Your task to perform on an android device: toggle data saver in the chrome app Image 0: 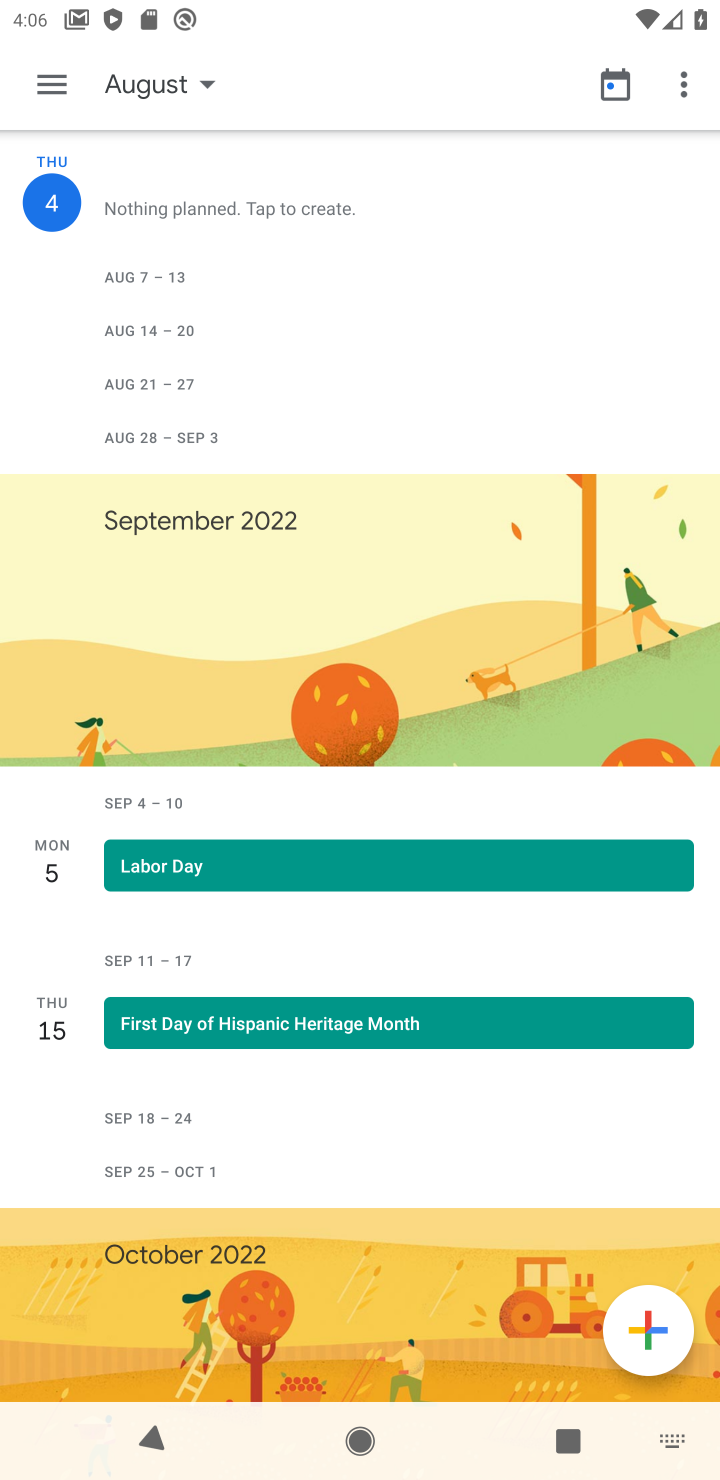
Step 0: press home button
Your task to perform on an android device: toggle data saver in the chrome app Image 1: 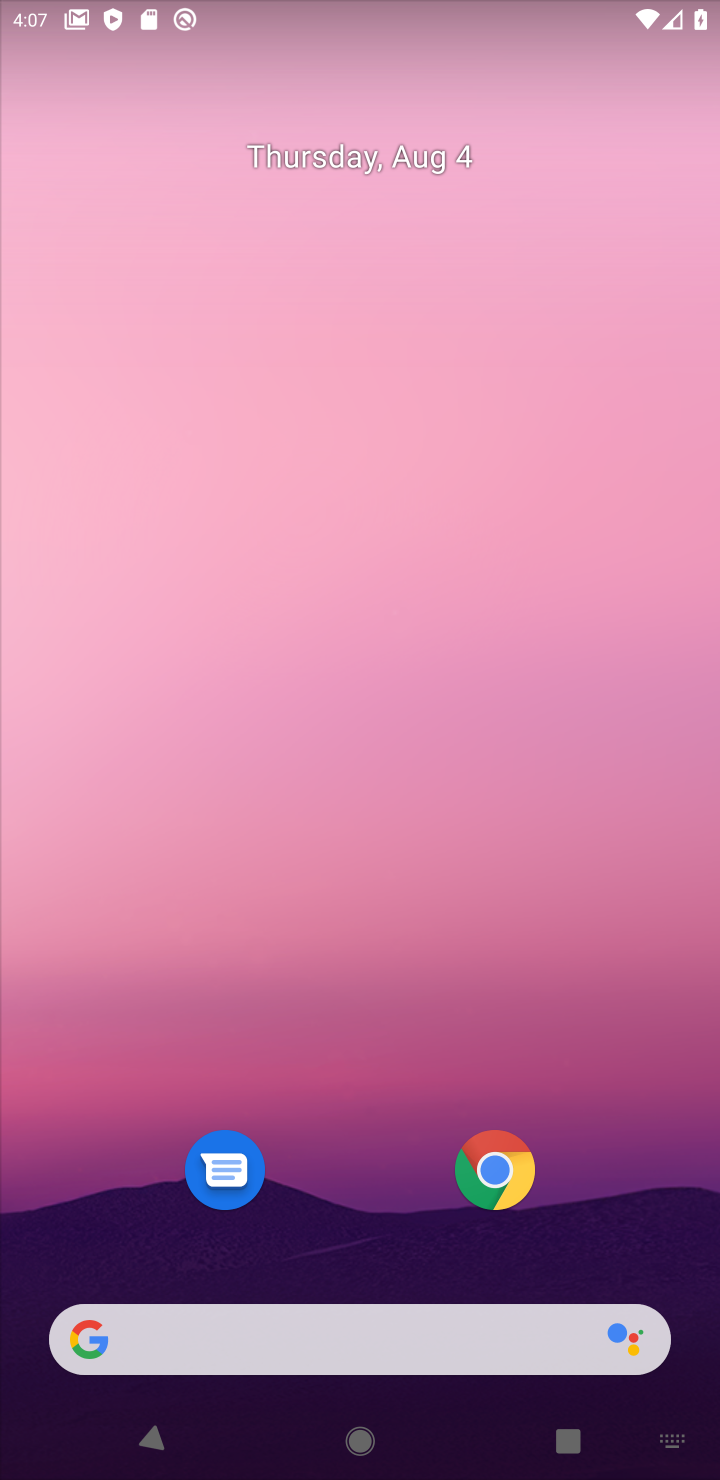
Step 1: drag from (671, 1185) to (552, 196)
Your task to perform on an android device: toggle data saver in the chrome app Image 2: 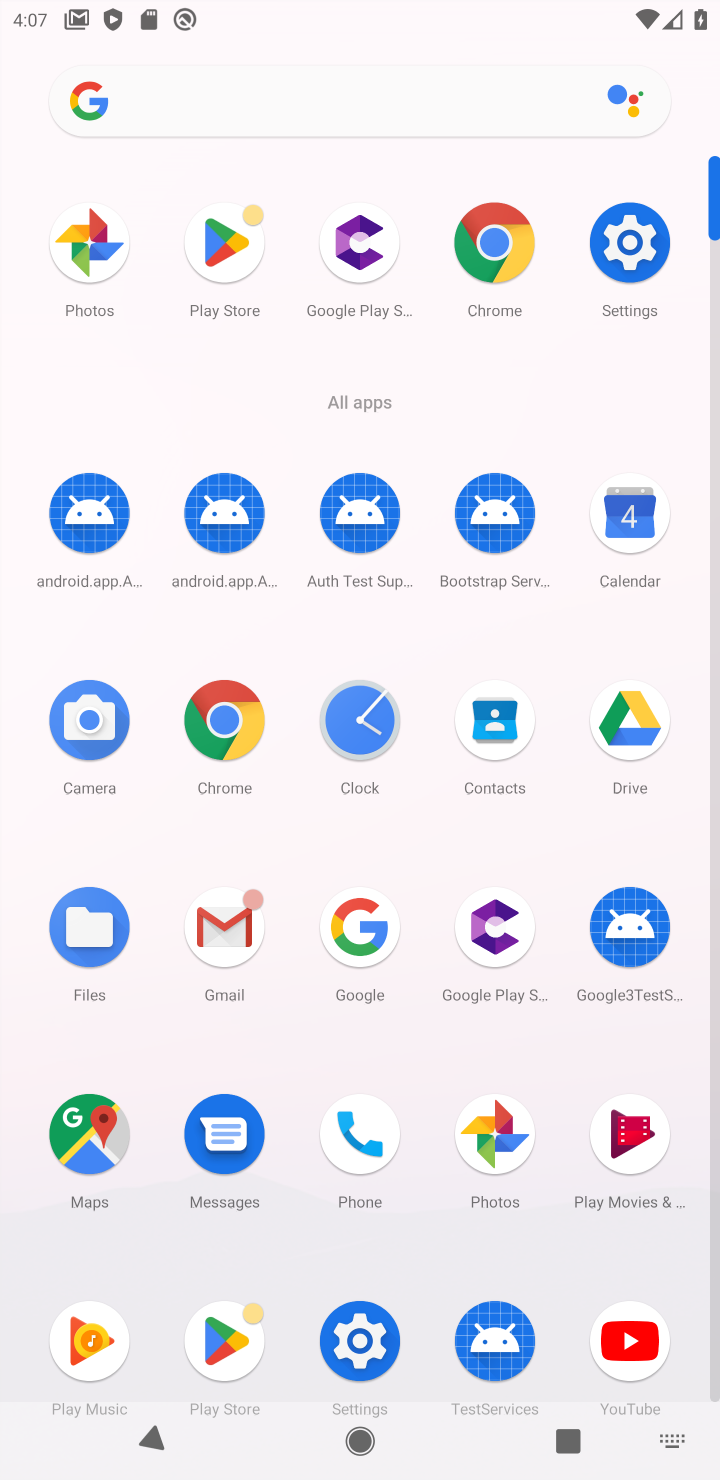
Step 2: click (503, 260)
Your task to perform on an android device: toggle data saver in the chrome app Image 3: 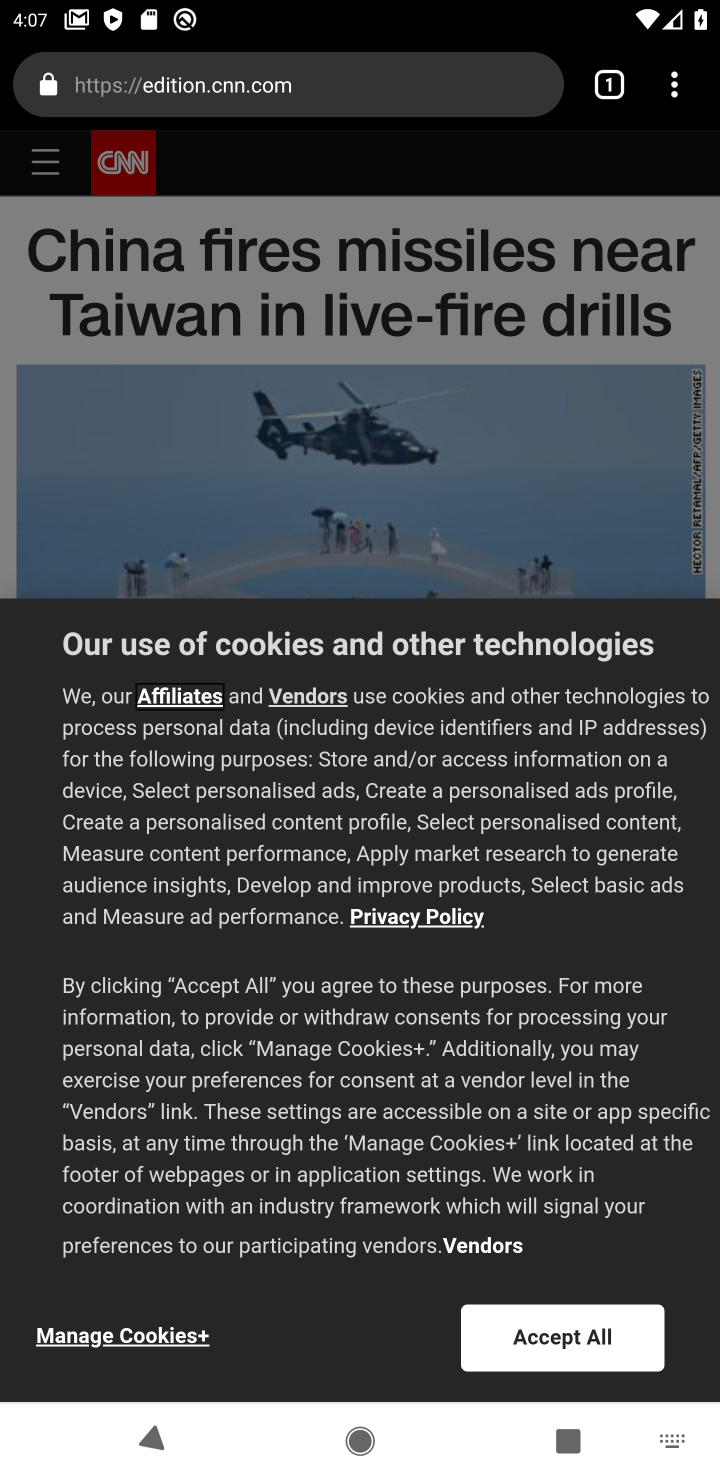
Step 3: click (680, 95)
Your task to perform on an android device: toggle data saver in the chrome app Image 4: 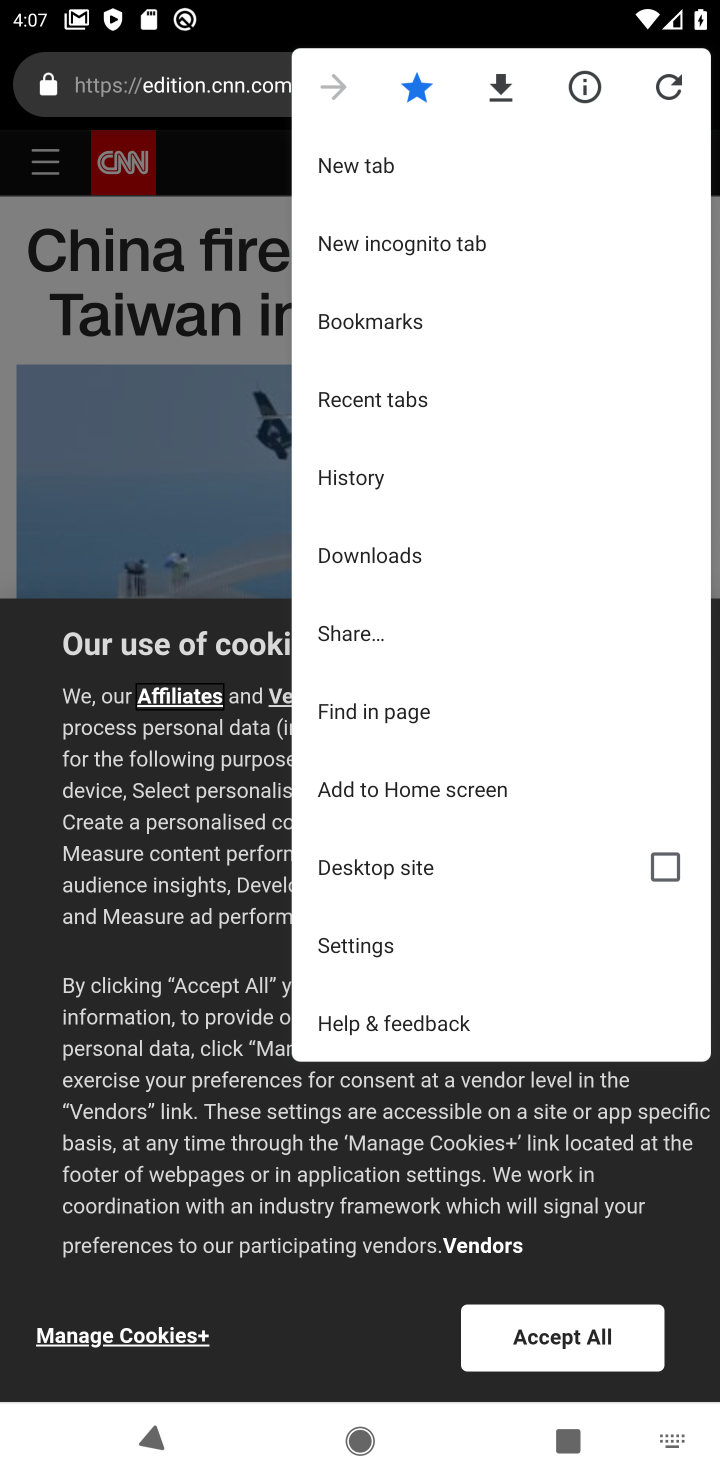
Step 4: click (457, 942)
Your task to perform on an android device: toggle data saver in the chrome app Image 5: 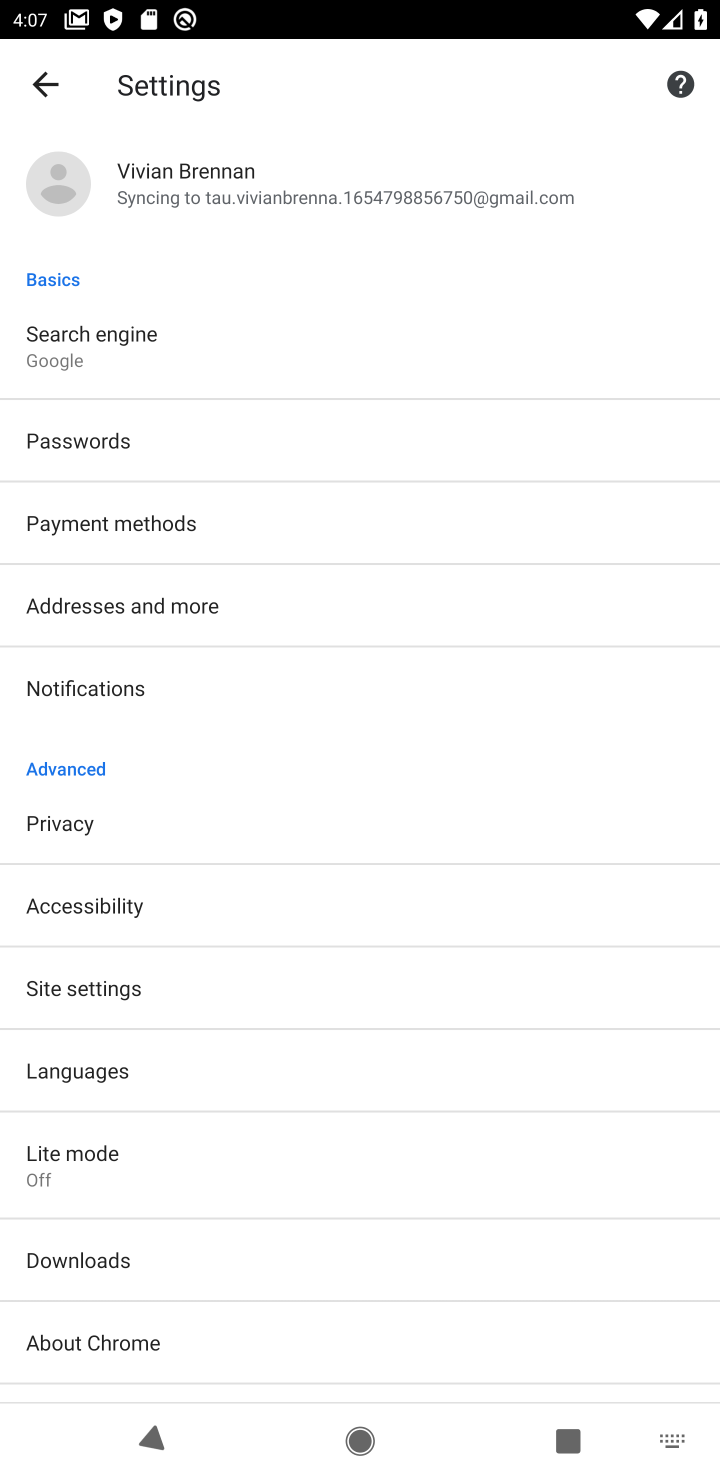
Step 5: drag from (380, 1319) to (325, 852)
Your task to perform on an android device: toggle data saver in the chrome app Image 6: 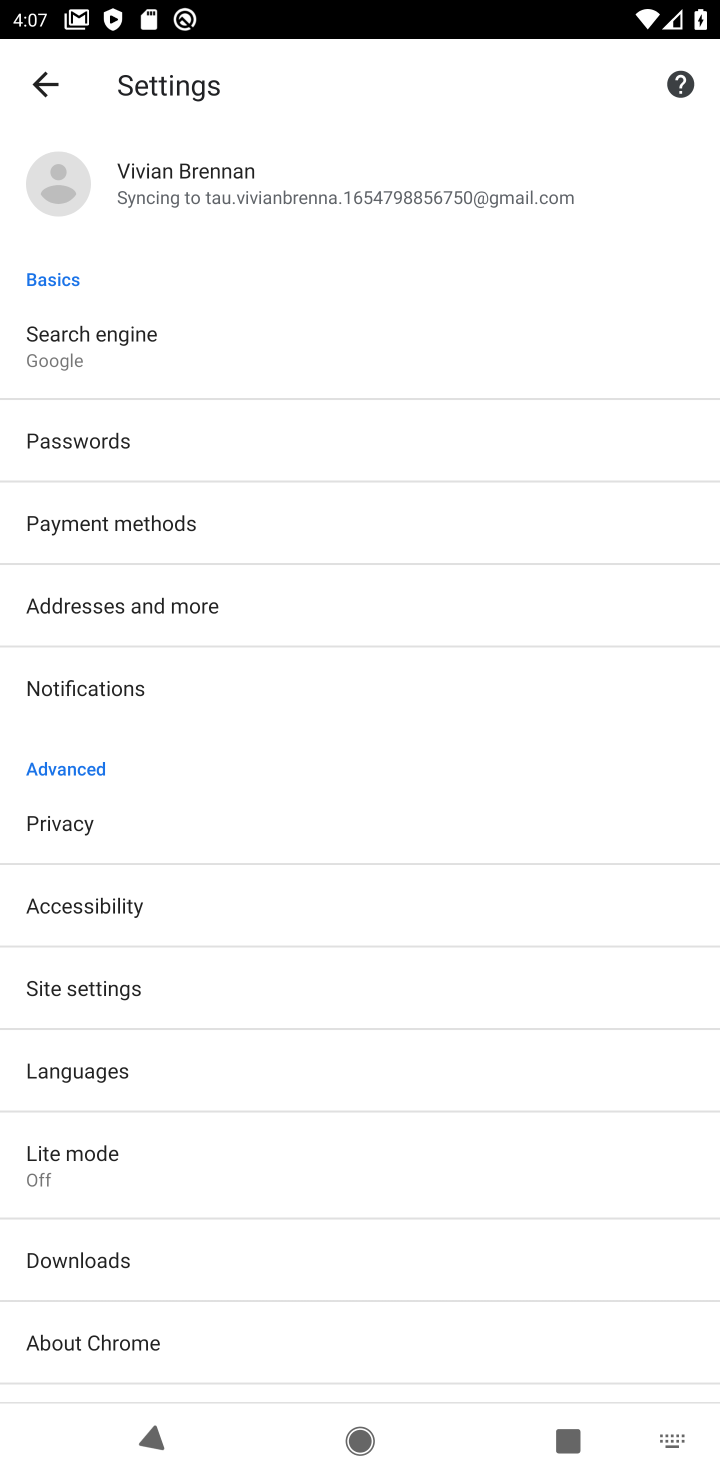
Step 6: click (392, 1184)
Your task to perform on an android device: toggle data saver in the chrome app Image 7: 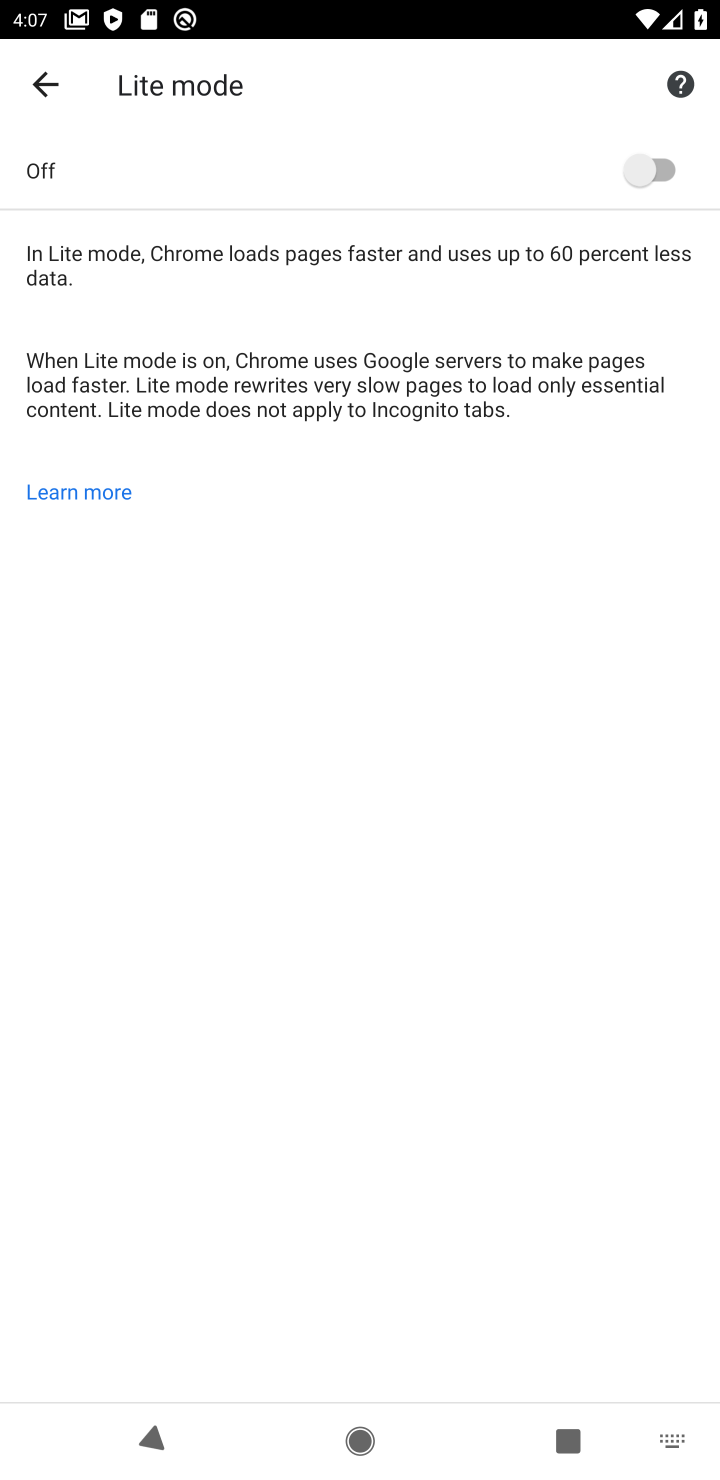
Step 7: click (654, 166)
Your task to perform on an android device: toggle data saver in the chrome app Image 8: 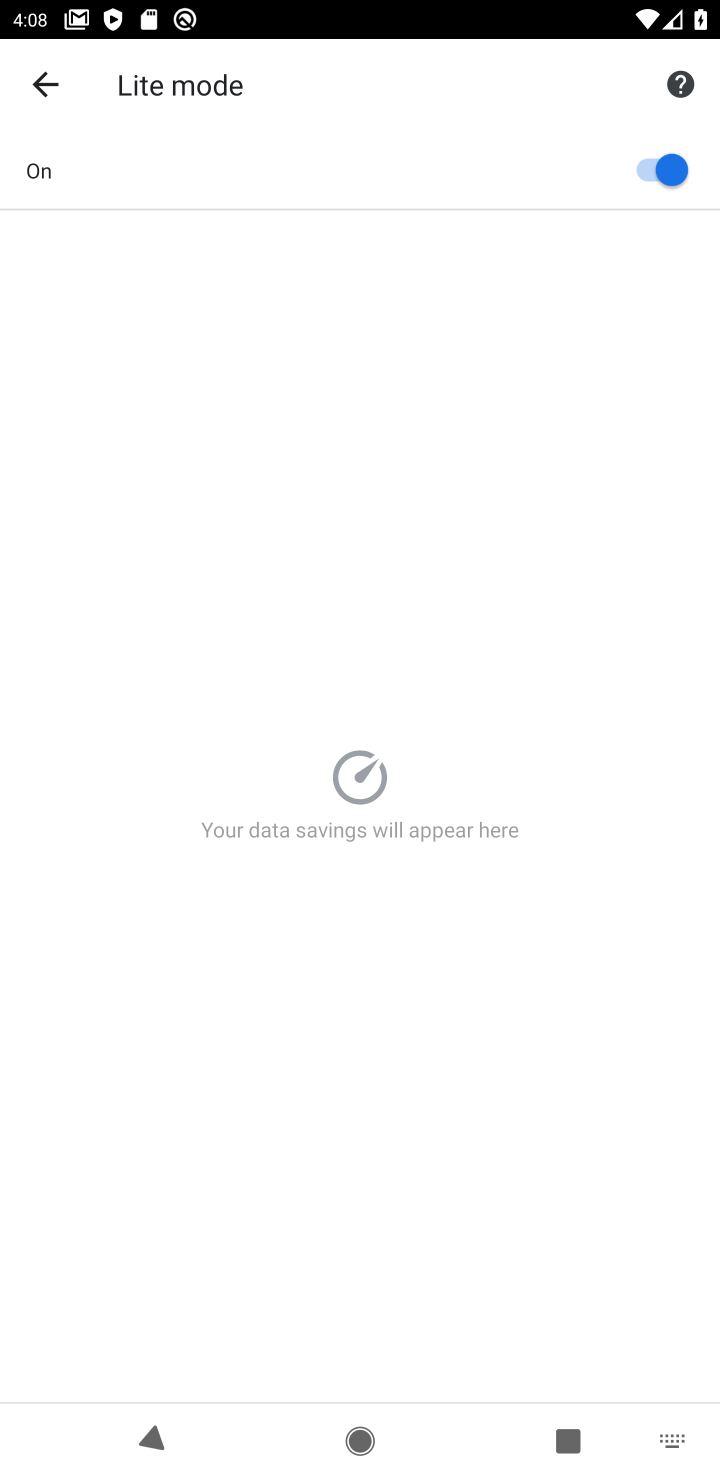
Step 8: task complete